Your task to perform on an android device: check data usage Image 0: 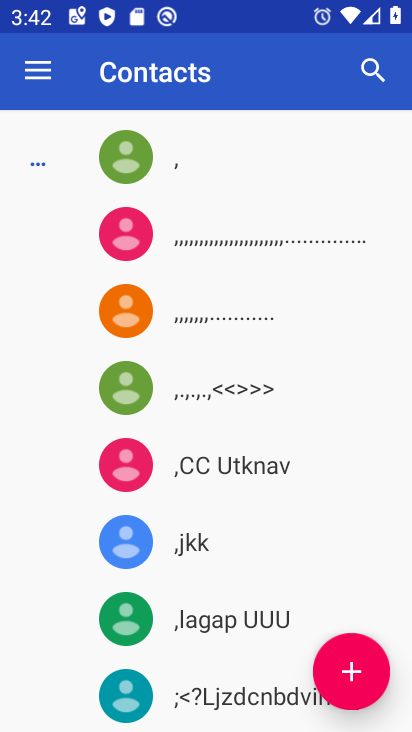
Step 0: press home button
Your task to perform on an android device: check data usage Image 1: 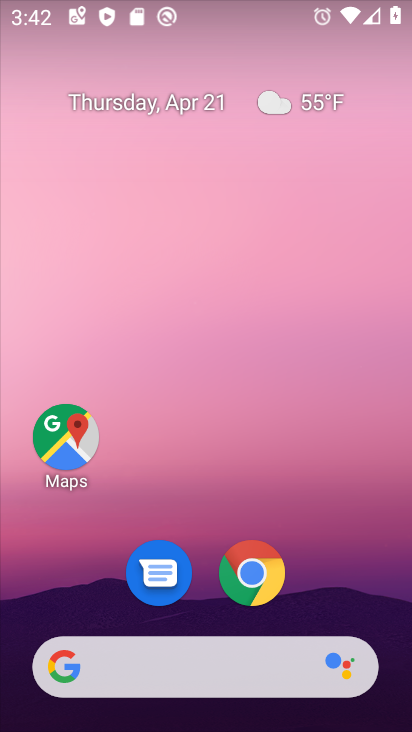
Step 1: drag from (359, 612) to (301, 196)
Your task to perform on an android device: check data usage Image 2: 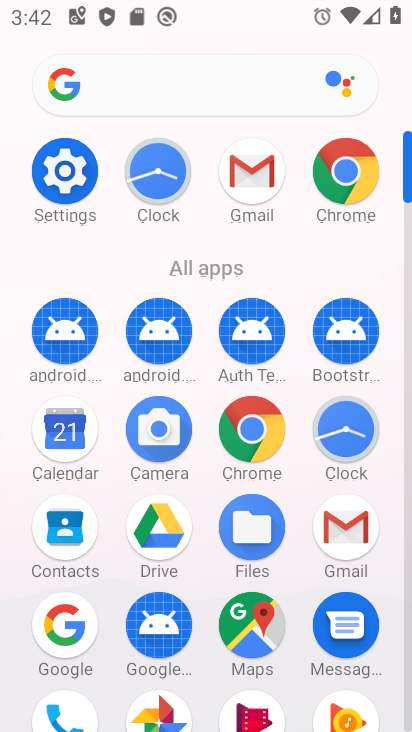
Step 2: click (407, 715)
Your task to perform on an android device: check data usage Image 3: 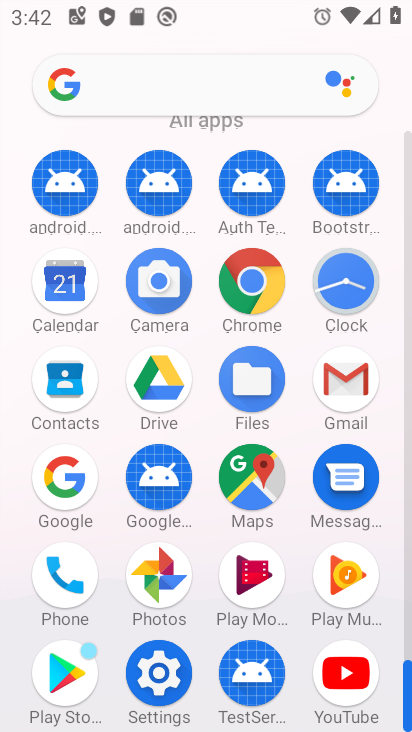
Step 3: click (157, 677)
Your task to perform on an android device: check data usage Image 4: 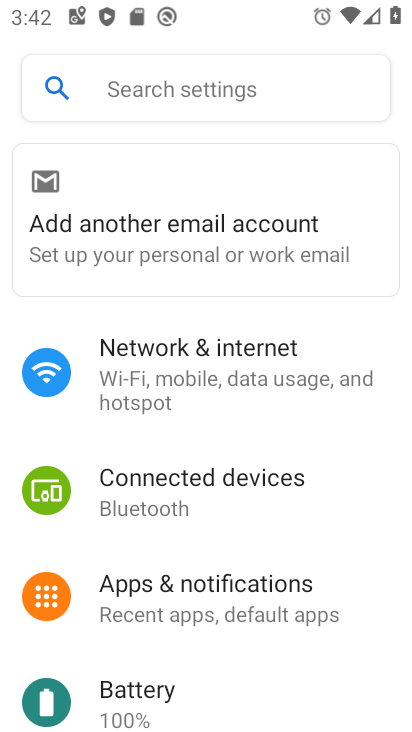
Step 4: click (169, 370)
Your task to perform on an android device: check data usage Image 5: 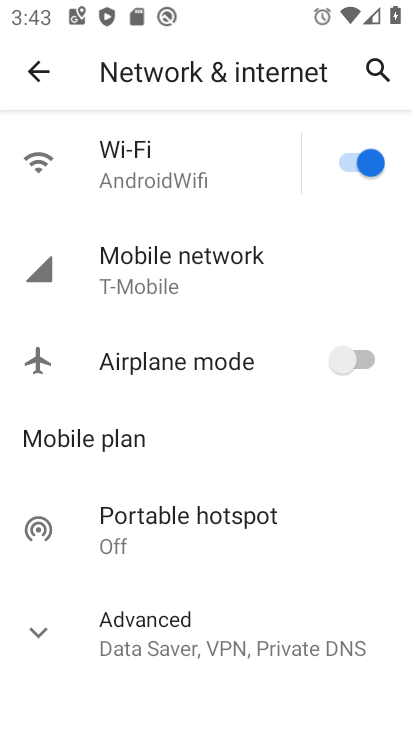
Step 5: click (145, 259)
Your task to perform on an android device: check data usage Image 6: 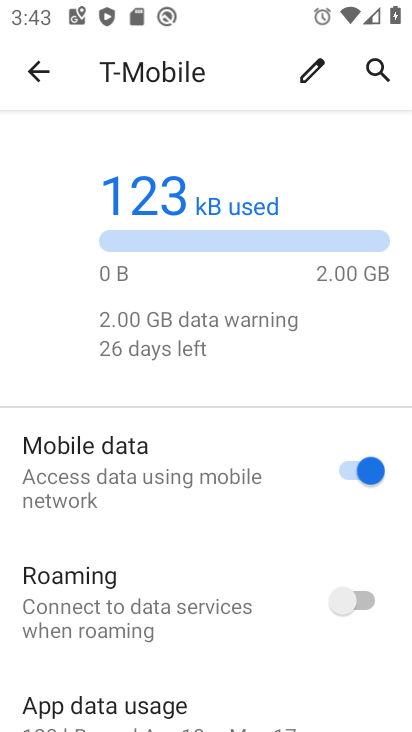
Step 6: task complete